Your task to perform on an android device: open app "Lyft - Rideshare, Bikes, Scooters & Transit" (install if not already installed) and enter user name: "deliberating@gmail.com" and password: "preyed" Image 0: 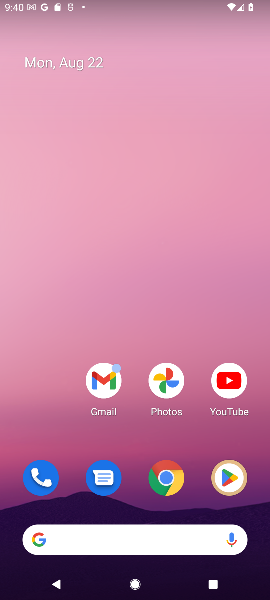
Step 0: click (211, 484)
Your task to perform on an android device: open app "Lyft - Rideshare, Bikes, Scooters & Transit" (install if not already installed) and enter user name: "deliberating@gmail.com" and password: "preyed" Image 1: 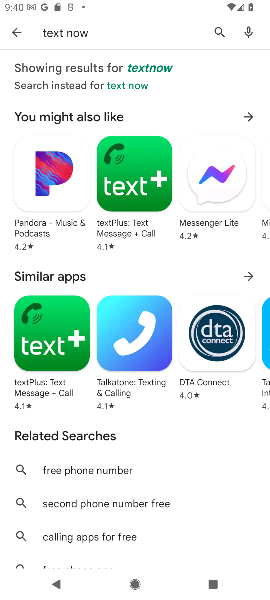
Step 1: click (212, 41)
Your task to perform on an android device: open app "Lyft - Rideshare, Bikes, Scooters & Transit" (install if not already installed) and enter user name: "deliberating@gmail.com" and password: "preyed" Image 2: 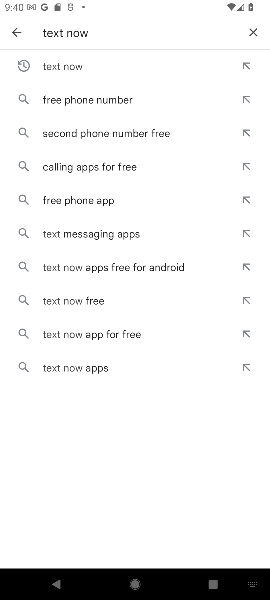
Step 2: click (254, 36)
Your task to perform on an android device: open app "Lyft - Rideshare, Bikes, Scooters & Transit" (install if not already installed) and enter user name: "deliberating@gmail.com" and password: "preyed" Image 3: 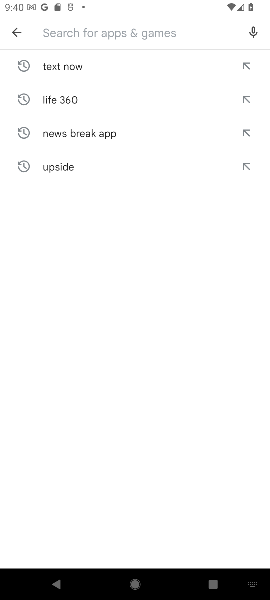
Step 3: type "lyst"
Your task to perform on an android device: open app "Lyft - Rideshare, Bikes, Scooters & Transit" (install if not already installed) and enter user name: "deliberating@gmail.com" and password: "preyed" Image 4: 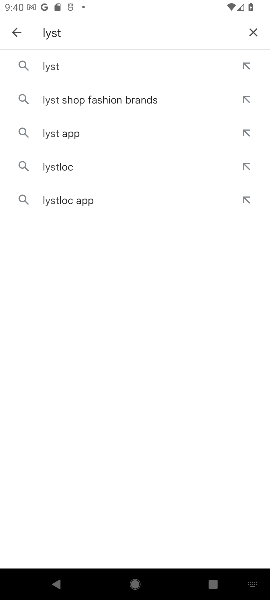
Step 4: click (47, 74)
Your task to perform on an android device: open app "Lyft - Rideshare, Bikes, Scooters & Transit" (install if not already installed) and enter user name: "deliberating@gmail.com" and password: "preyed" Image 5: 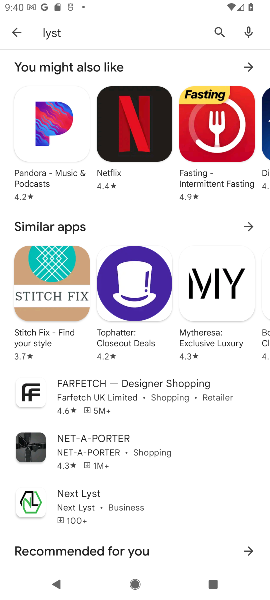
Step 5: task complete